Your task to perform on an android device: set default search engine in the chrome app Image 0: 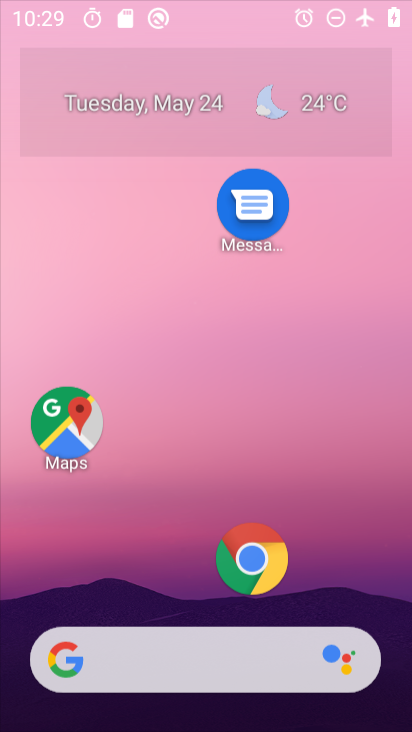
Step 0: drag from (175, 591) to (194, 159)
Your task to perform on an android device: set default search engine in the chrome app Image 1: 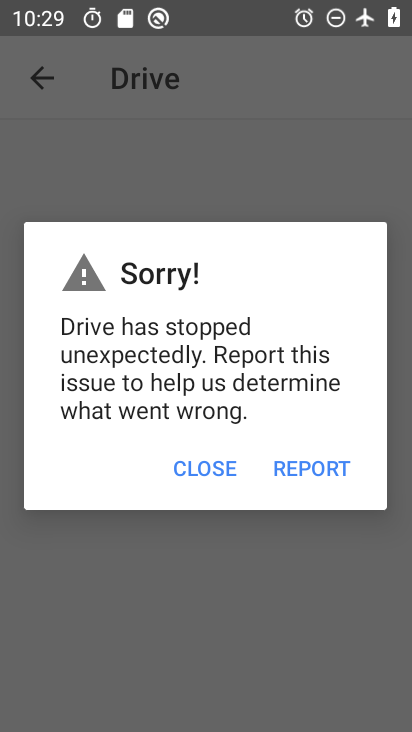
Step 1: press home button
Your task to perform on an android device: set default search engine in the chrome app Image 2: 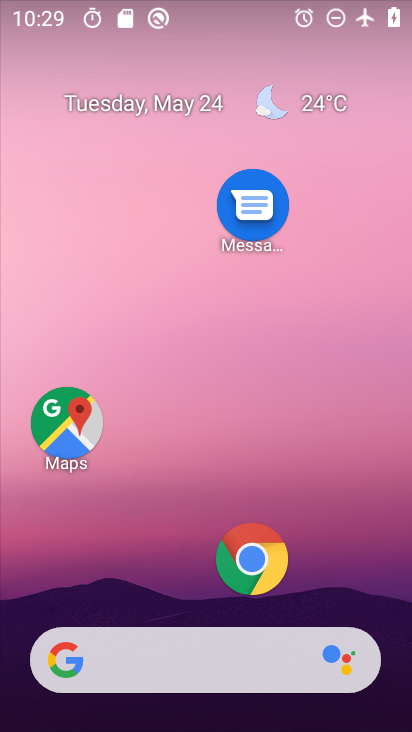
Step 2: click (252, 562)
Your task to perform on an android device: set default search engine in the chrome app Image 3: 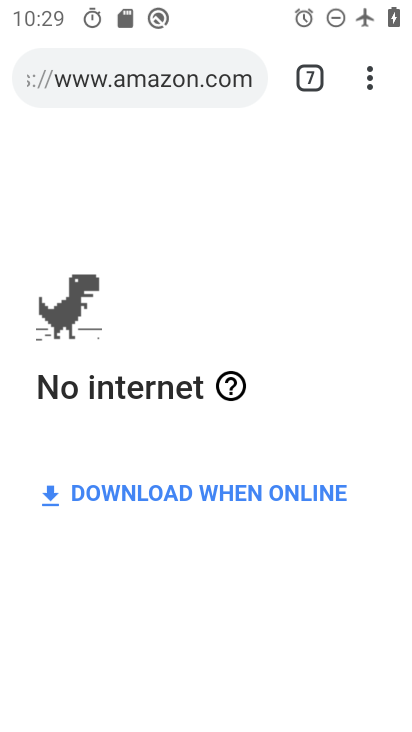
Step 3: drag from (370, 72) to (125, 610)
Your task to perform on an android device: set default search engine in the chrome app Image 4: 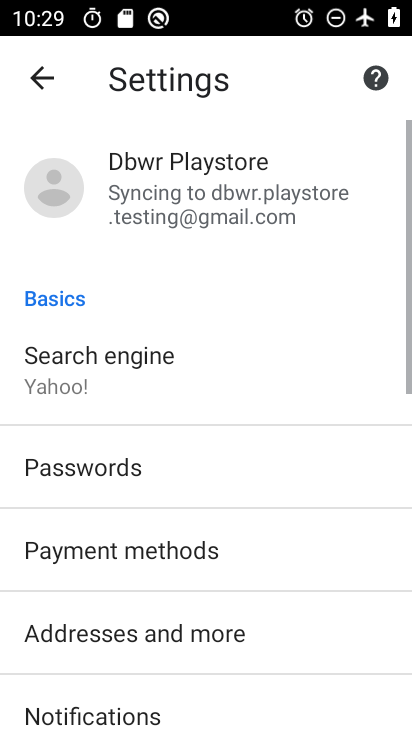
Step 4: click (133, 346)
Your task to perform on an android device: set default search engine in the chrome app Image 5: 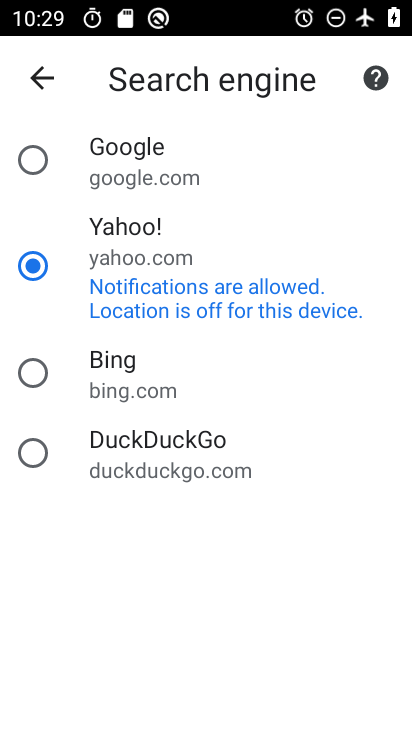
Step 5: click (115, 153)
Your task to perform on an android device: set default search engine in the chrome app Image 6: 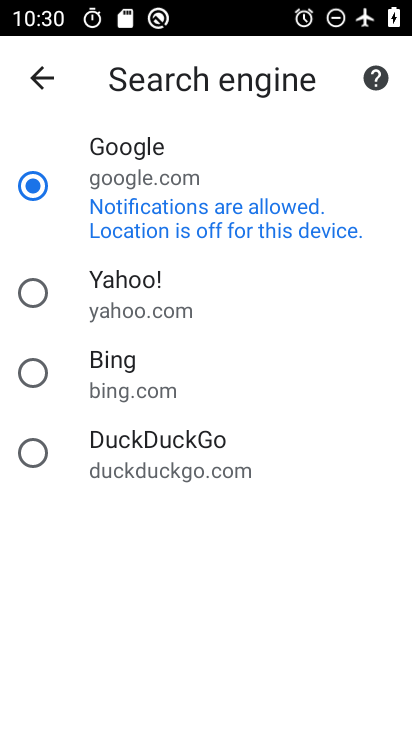
Step 6: task complete